Your task to perform on an android device: toggle location history Image 0: 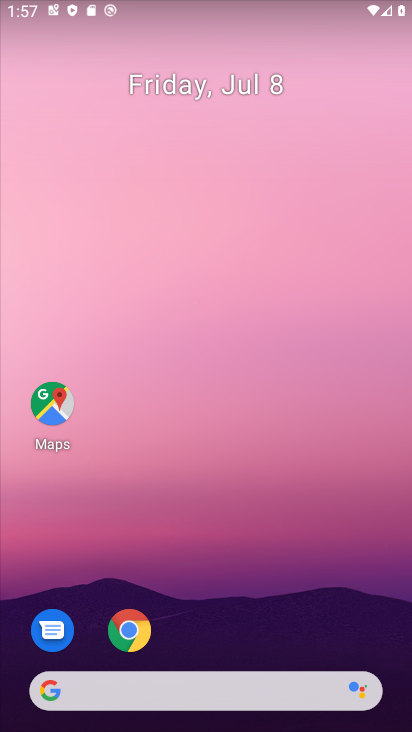
Step 0: drag from (218, 642) to (205, 13)
Your task to perform on an android device: toggle location history Image 1: 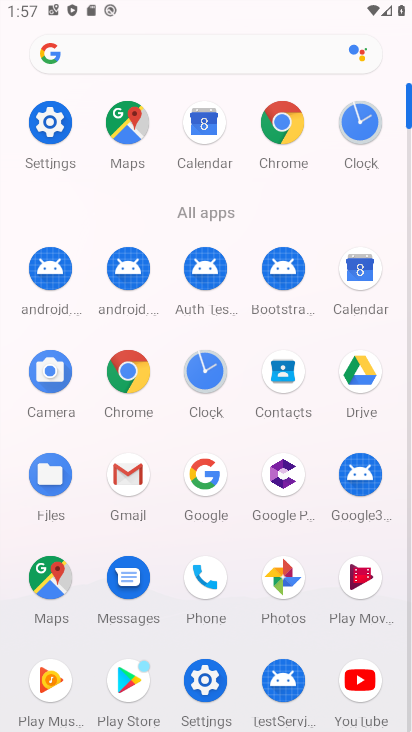
Step 1: click (48, 116)
Your task to perform on an android device: toggle location history Image 2: 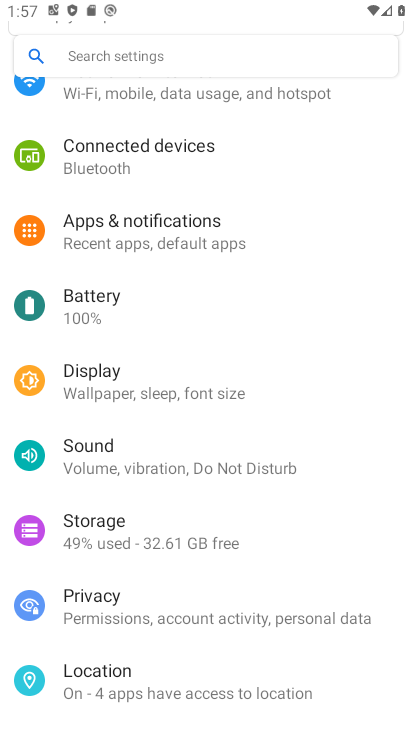
Step 2: click (146, 675)
Your task to perform on an android device: toggle location history Image 3: 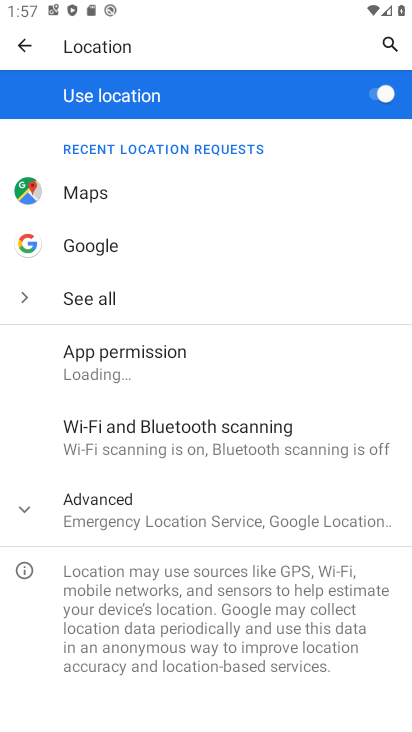
Step 3: click (23, 504)
Your task to perform on an android device: toggle location history Image 4: 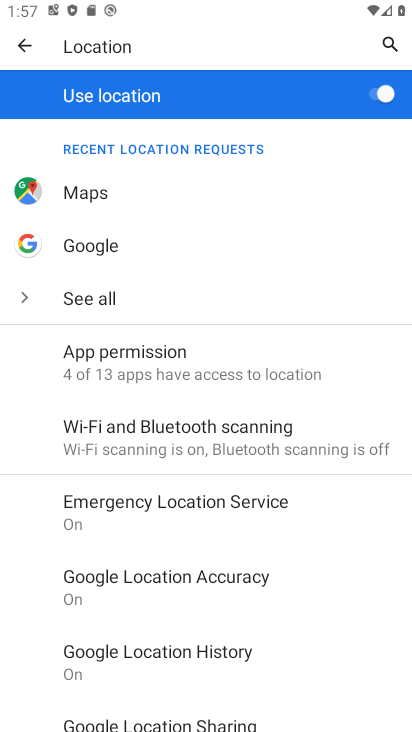
Step 4: click (258, 653)
Your task to perform on an android device: toggle location history Image 5: 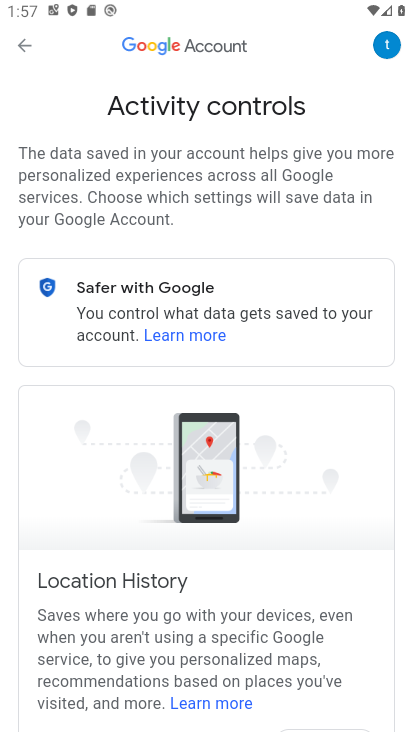
Step 5: drag from (287, 678) to (326, 79)
Your task to perform on an android device: toggle location history Image 6: 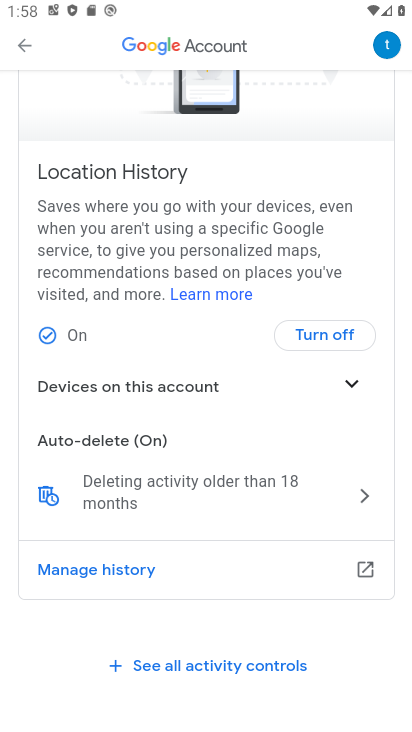
Step 6: click (332, 339)
Your task to perform on an android device: toggle location history Image 7: 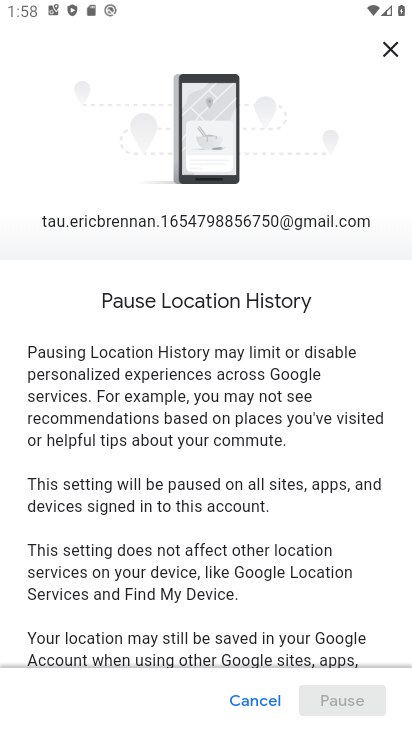
Step 7: drag from (243, 644) to (286, 300)
Your task to perform on an android device: toggle location history Image 8: 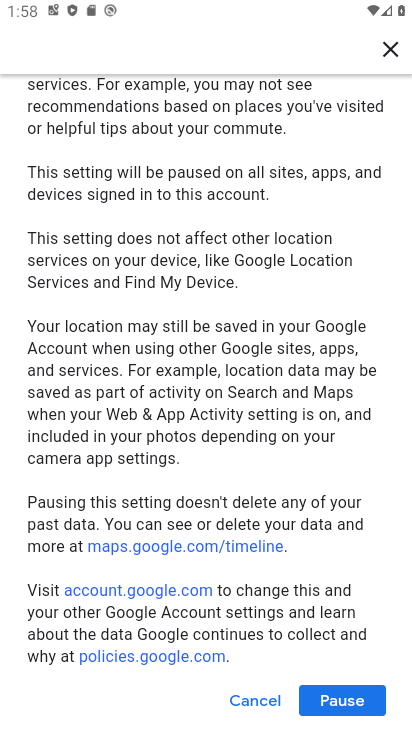
Step 8: click (343, 695)
Your task to perform on an android device: toggle location history Image 9: 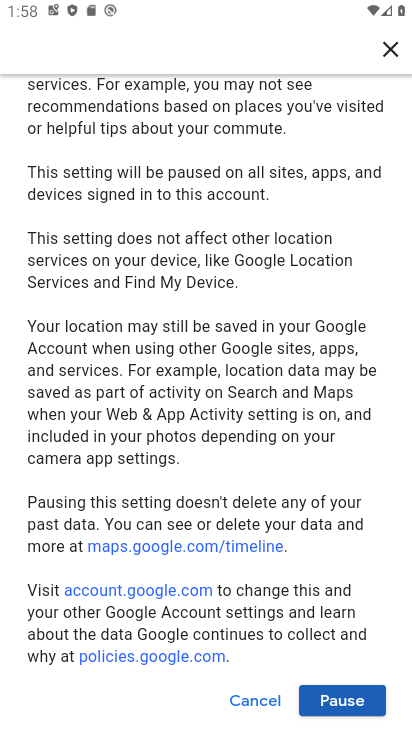
Step 9: click (342, 697)
Your task to perform on an android device: toggle location history Image 10: 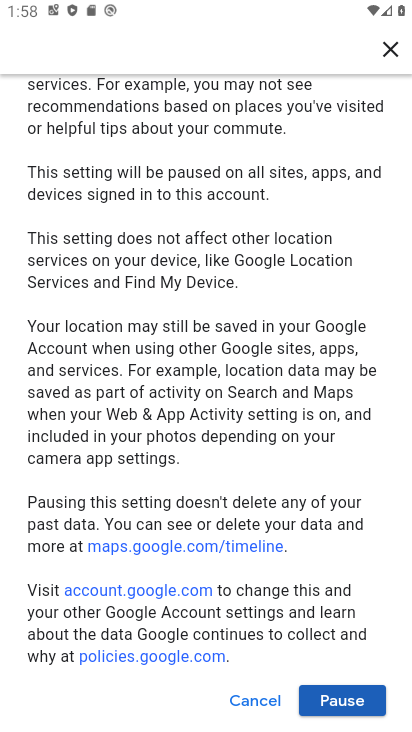
Step 10: click (342, 697)
Your task to perform on an android device: toggle location history Image 11: 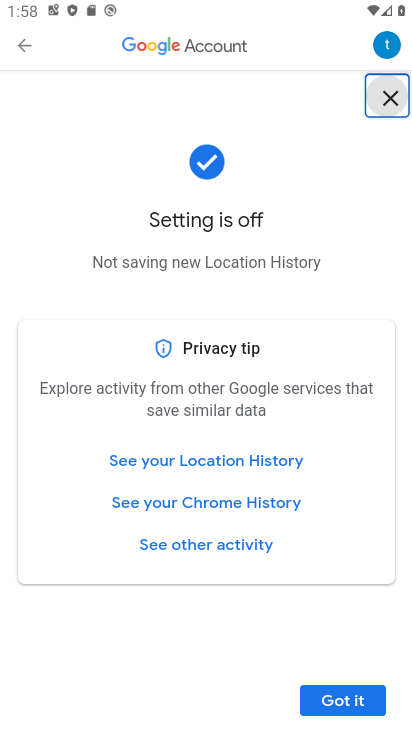
Step 11: click (351, 700)
Your task to perform on an android device: toggle location history Image 12: 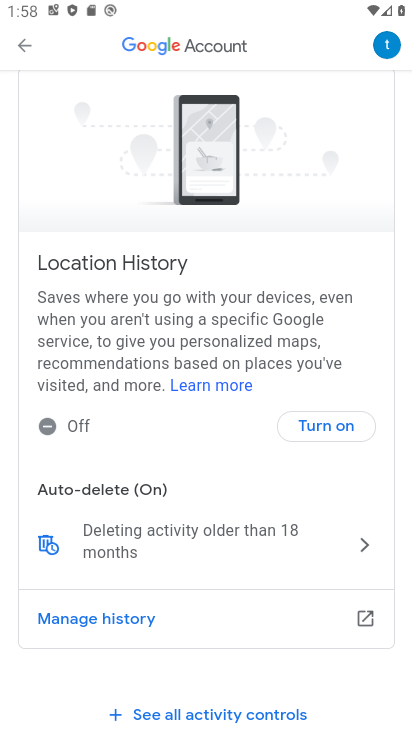
Step 12: task complete